Your task to perform on an android device: star an email in the gmail app Image 0: 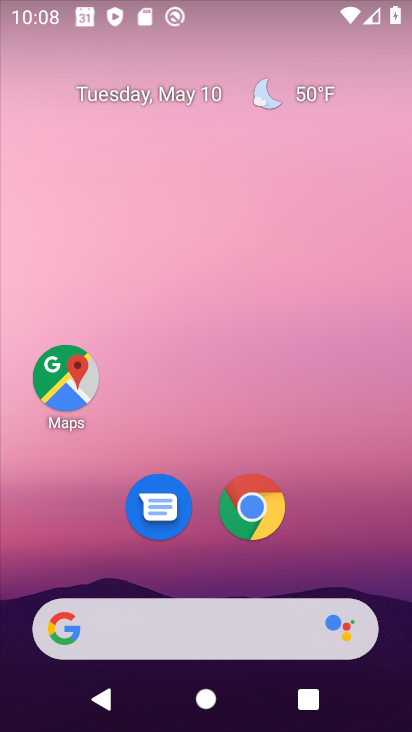
Step 0: drag from (329, 560) to (302, 265)
Your task to perform on an android device: star an email in the gmail app Image 1: 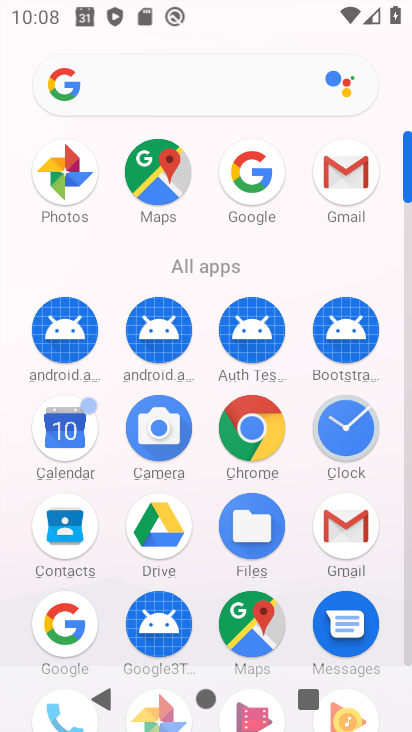
Step 1: click (337, 548)
Your task to perform on an android device: star an email in the gmail app Image 2: 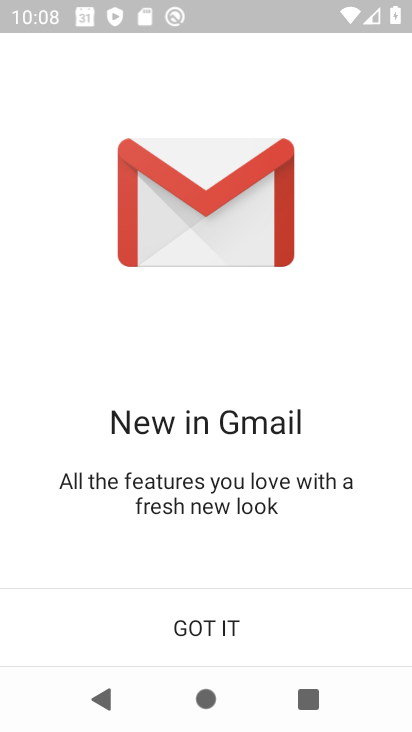
Step 2: click (190, 609)
Your task to perform on an android device: star an email in the gmail app Image 3: 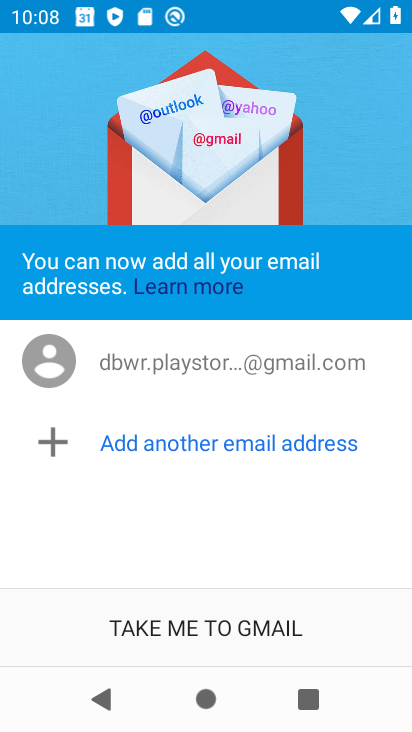
Step 3: click (243, 620)
Your task to perform on an android device: star an email in the gmail app Image 4: 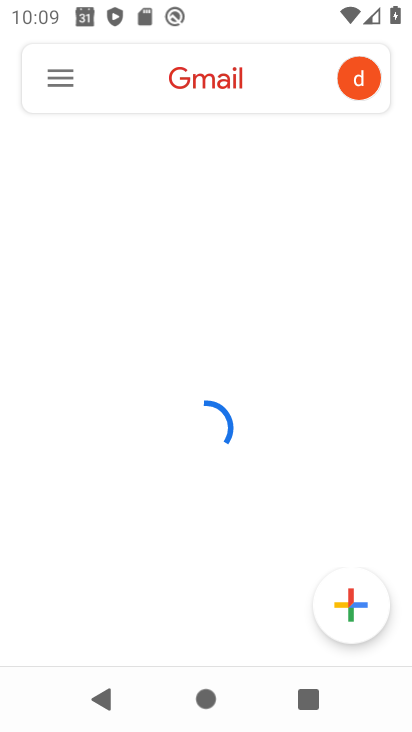
Step 4: click (49, 79)
Your task to perform on an android device: star an email in the gmail app Image 5: 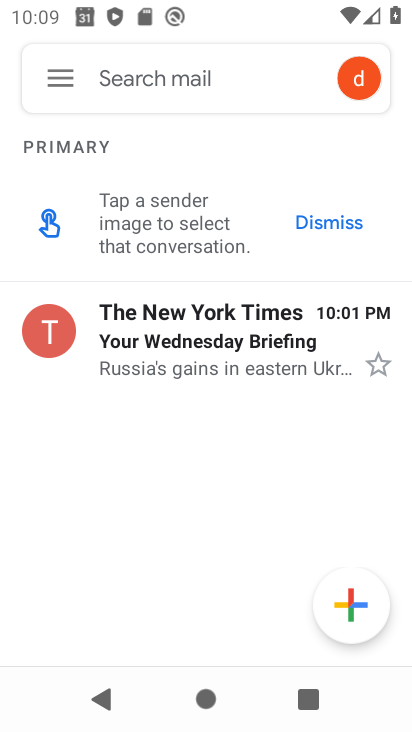
Step 5: click (374, 370)
Your task to perform on an android device: star an email in the gmail app Image 6: 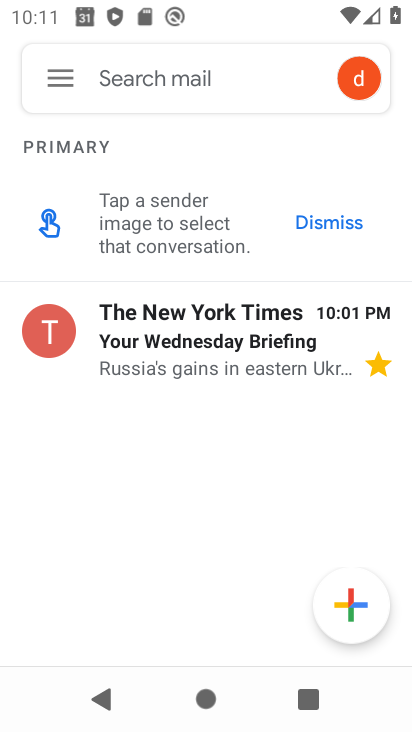
Step 6: task complete